Your task to perform on an android device: Go to settings Image 0: 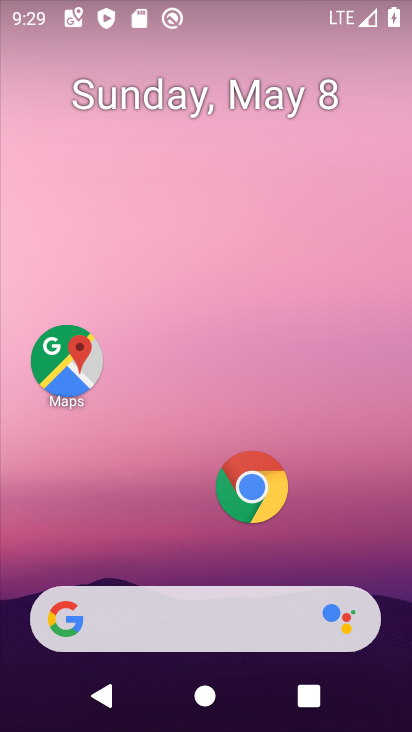
Step 0: drag from (326, 549) to (337, 108)
Your task to perform on an android device: Go to settings Image 1: 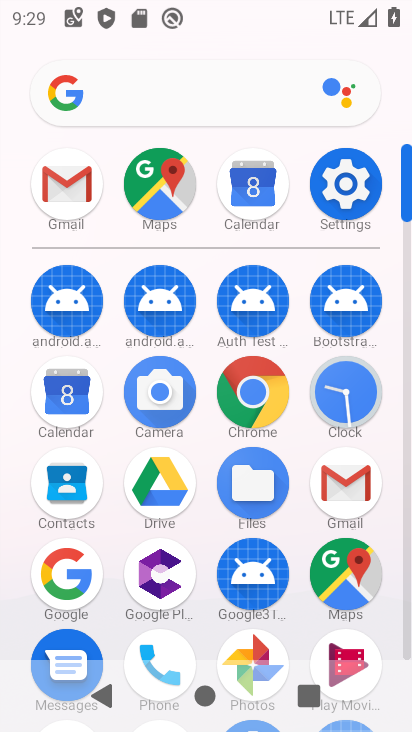
Step 1: click (351, 189)
Your task to perform on an android device: Go to settings Image 2: 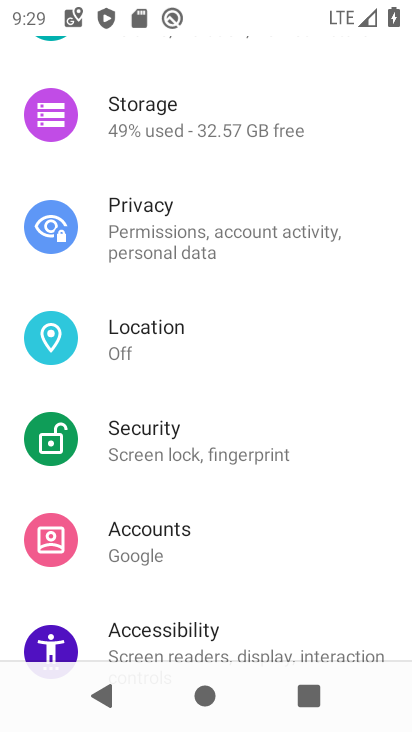
Step 2: task complete